Your task to perform on an android device: see tabs open on other devices in the chrome app Image 0: 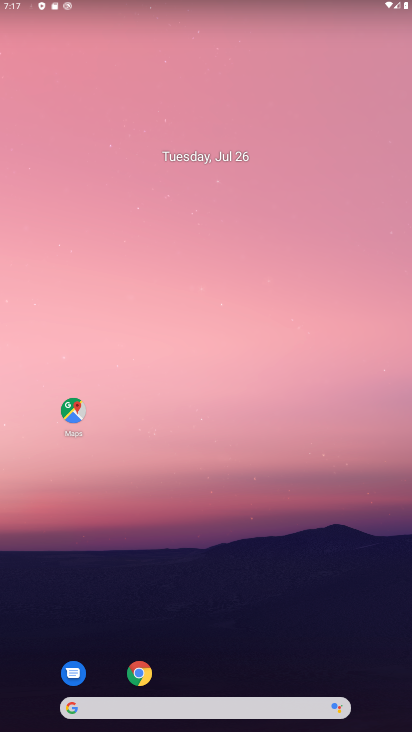
Step 0: drag from (390, 665) to (281, 28)
Your task to perform on an android device: see tabs open on other devices in the chrome app Image 1: 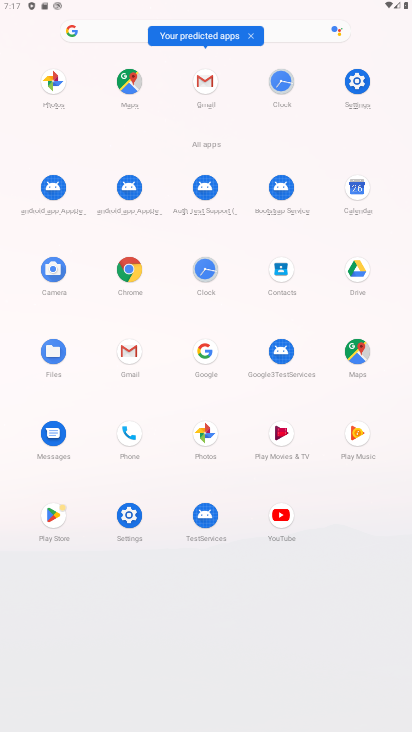
Step 1: click (134, 269)
Your task to perform on an android device: see tabs open on other devices in the chrome app Image 2: 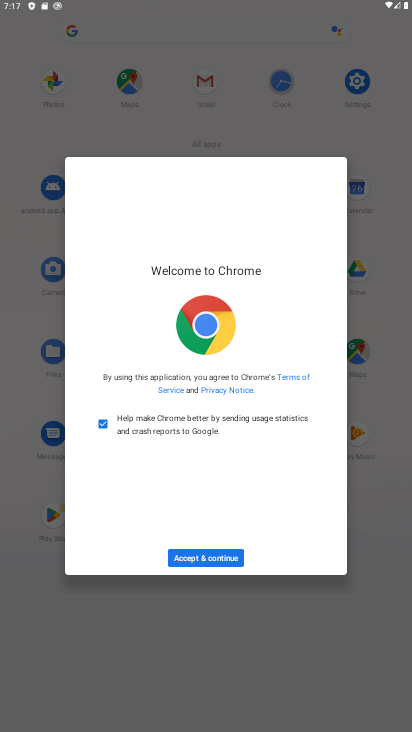
Step 2: click (203, 554)
Your task to perform on an android device: see tabs open on other devices in the chrome app Image 3: 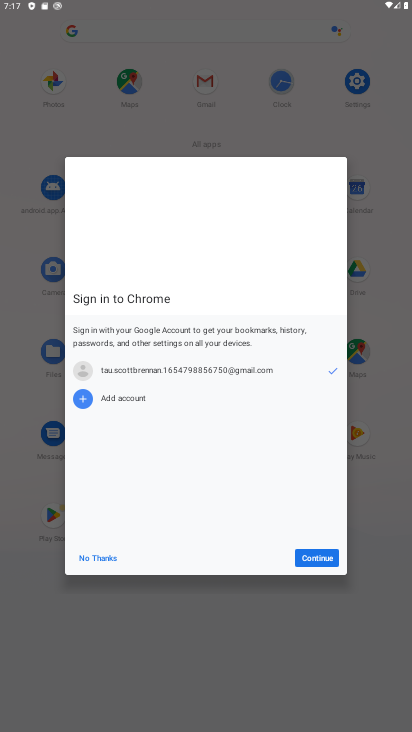
Step 3: click (314, 562)
Your task to perform on an android device: see tabs open on other devices in the chrome app Image 4: 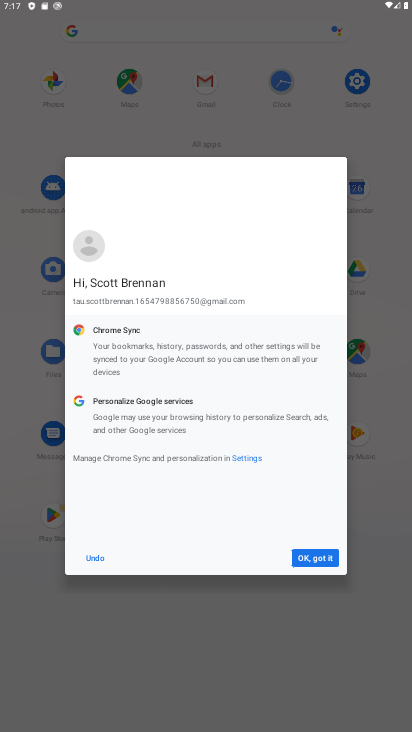
Step 4: click (314, 562)
Your task to perform on an android device: see tabs open on other devices in the chrome app Image 5: 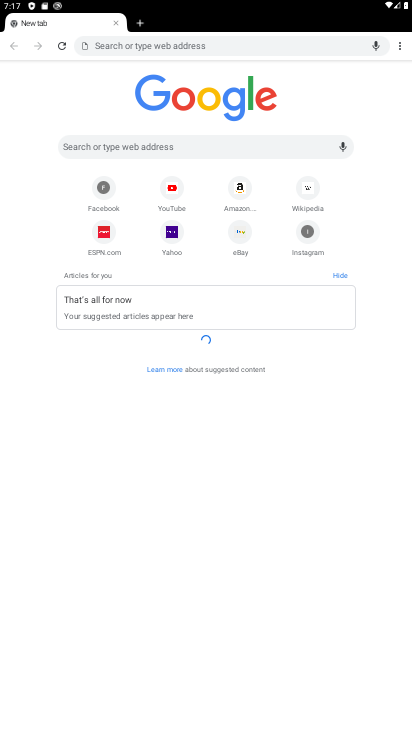
Step 5: task complete